Your task to perform on an android device: open wifi settings Image 0: 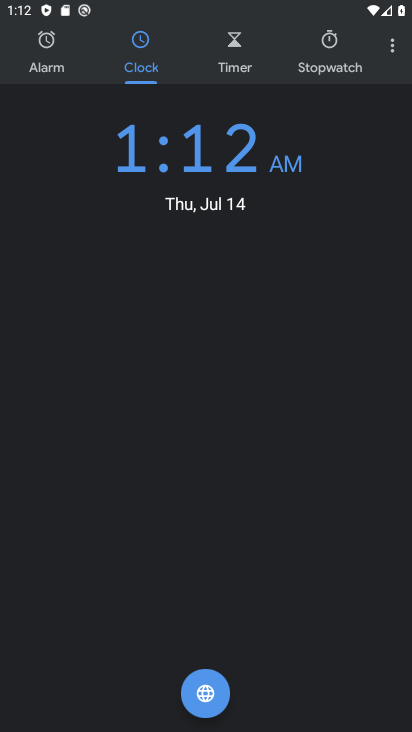
Step 0: press home button
Your task to perform on an android device: open wifi settings Image 1: 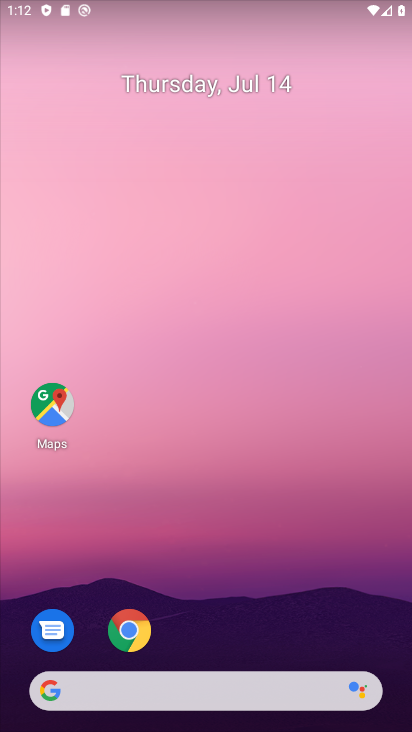
Step 1: drag from (212, 653) to (109, 101)
Your task to perform on an android device: open wifi settings Image 2: 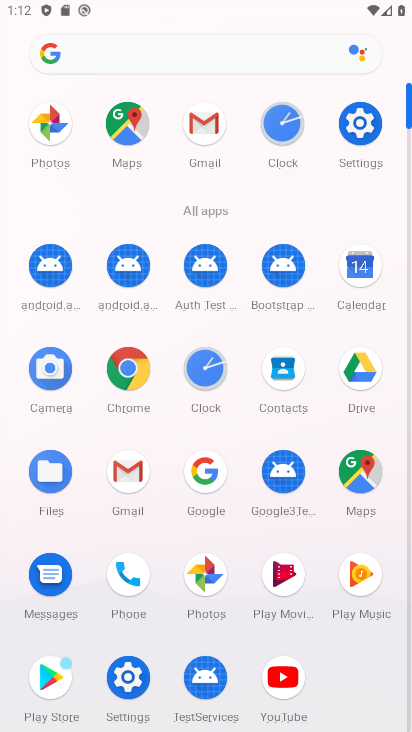
Step 2: click (367, 129)
Your task to perform on an android device: open wifi settings Image 3: 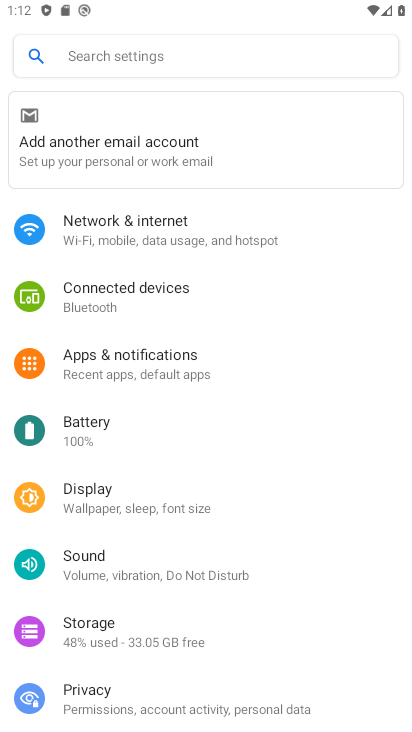
Step 3: click (75, 229)
Your task to perform on an android device: open wifi settings Image 4: 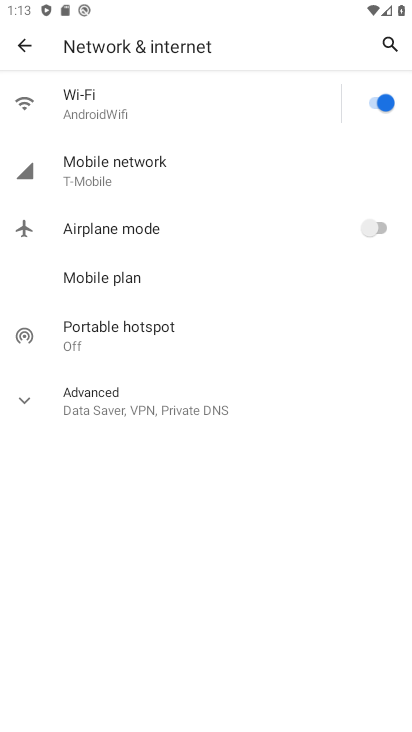
Step 4: click (59, 109)
Your task to perform on an android device: open wifi settings Image 5: 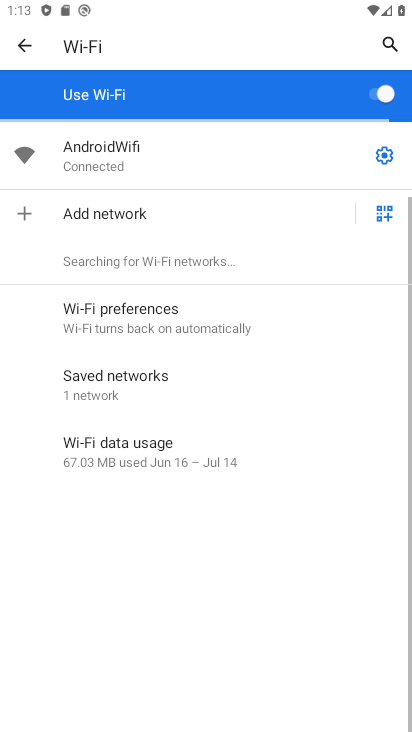
Step 5: task complete